Your task to perform on an android device: See recent photos Image 0: 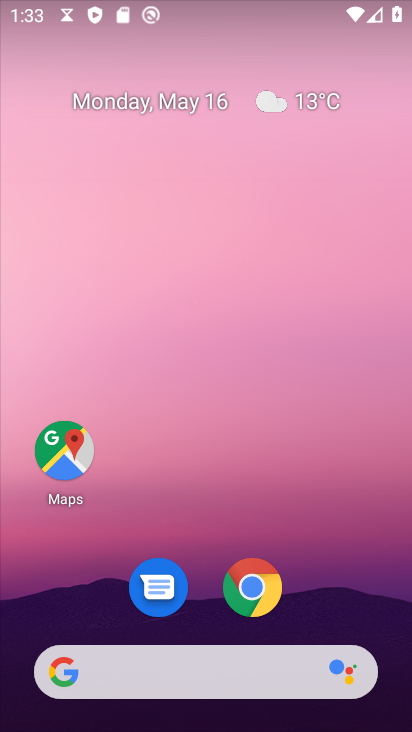
Step 0: drag from (186, 582) to (207, 399)
Your task to perform on an android device: See recent photos Image 1: 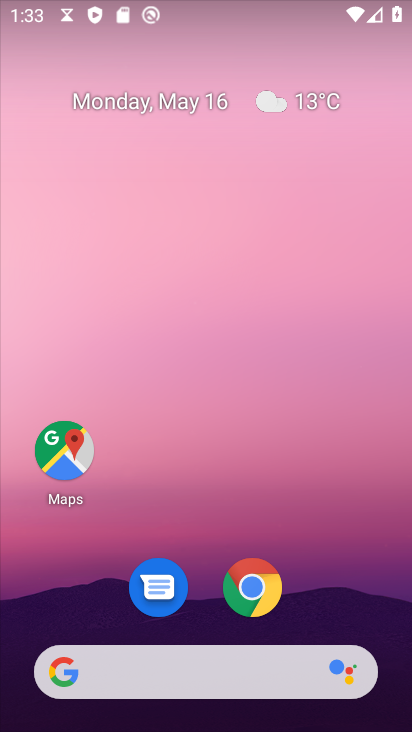
Step 1: drag from (177, 664) to (175, 387)
Your task to perform on an android device: See recent photos Image 2: 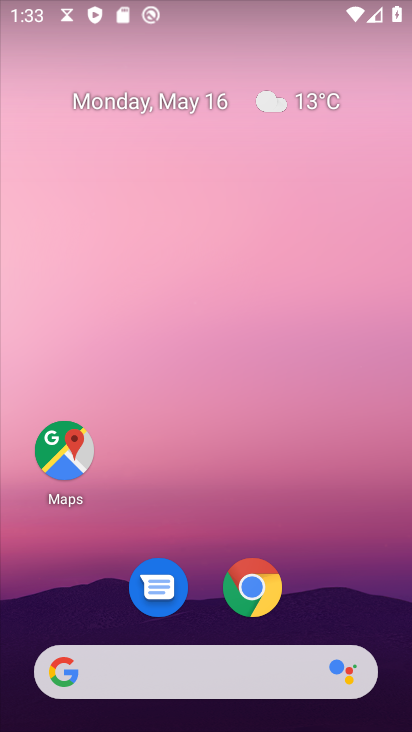
Step 2: drag from (202, 648) to (195, 172)
Your task to perform on an android device: See recent photos Image 3: 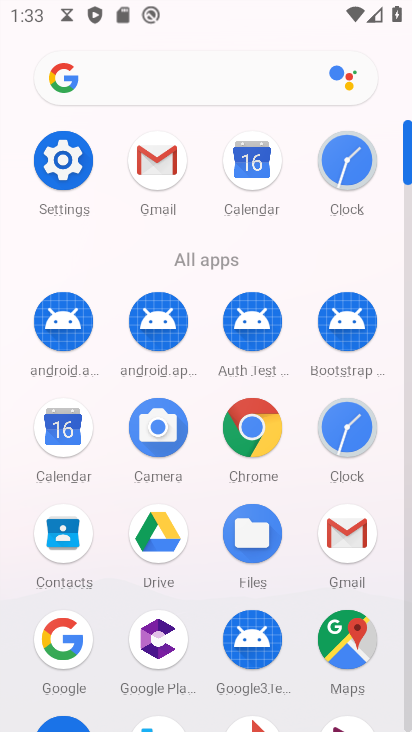
Step 3: drag from (115, 622) to (101, 273)
Your task to perform on an android device: See recent photos Image 4: 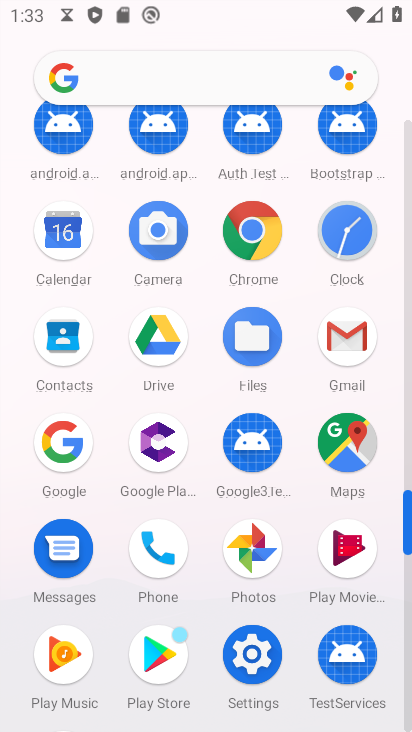
Step 4: click (262, 555)
Your task to perform on an android device: See recent photos Image 5: 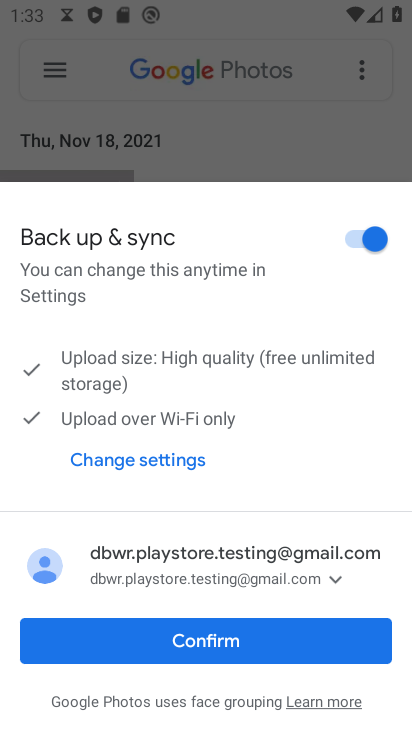
Step 5: click (218, 641)
Your task to perform on an android device: See recent photos Image 6: 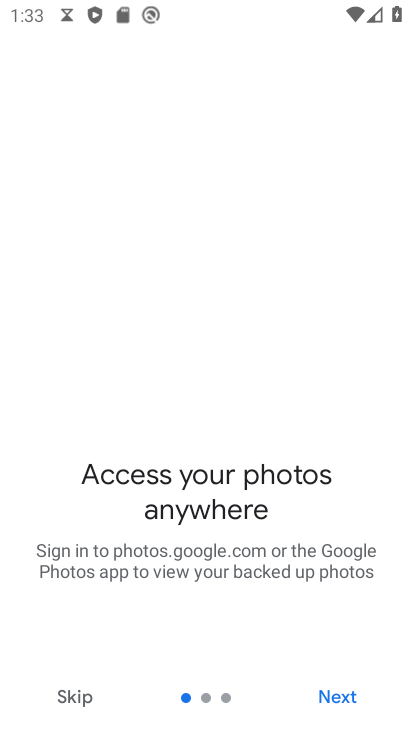
Step 6: click (341, 694)
Your task to perform on an android device: See recent photos Image 7: 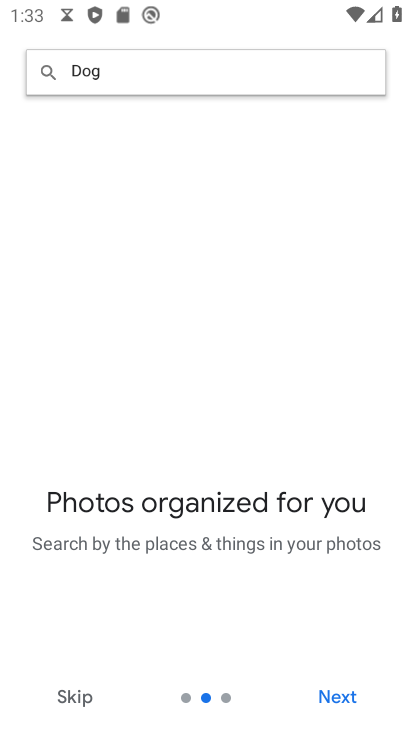
Step 7: click (341, 694)
Your task to perform on an android device: See recent photos Image 8: 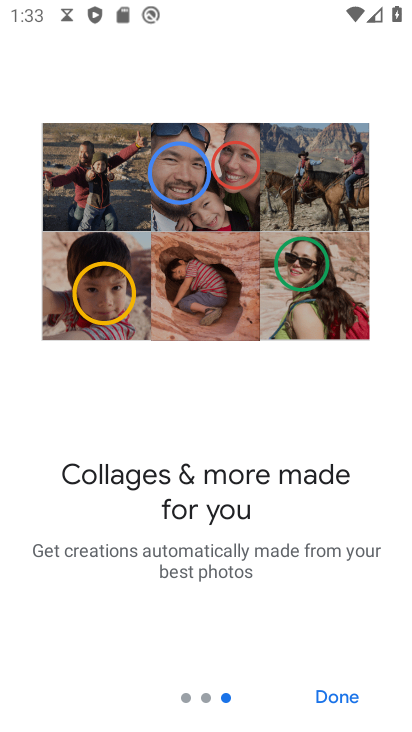
Step 8: click (341, 694)
Your task to perform on an android device: See recent photos Image 9: 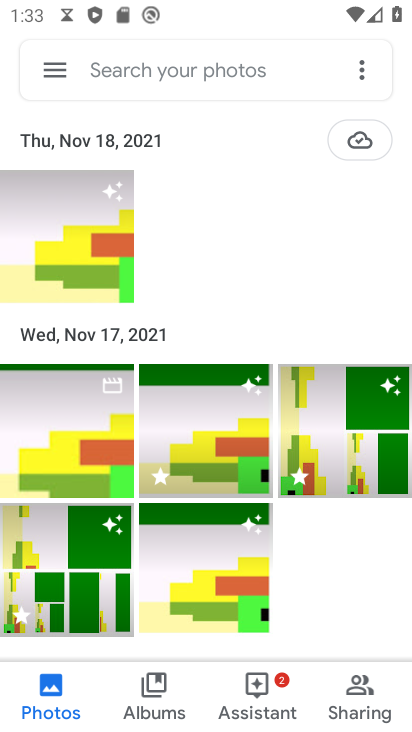
Step 9: click (107, 231)
Your task to perform on an android device: See recent photos Image 10: 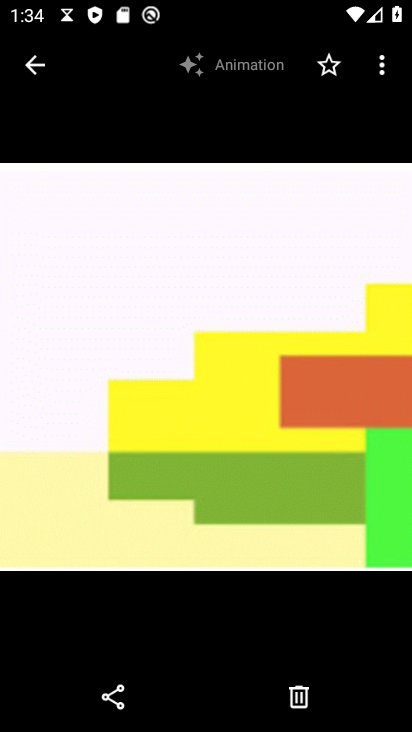
Step 10: task complete